Your task to perform on an android device: Go to Maps Image 0: 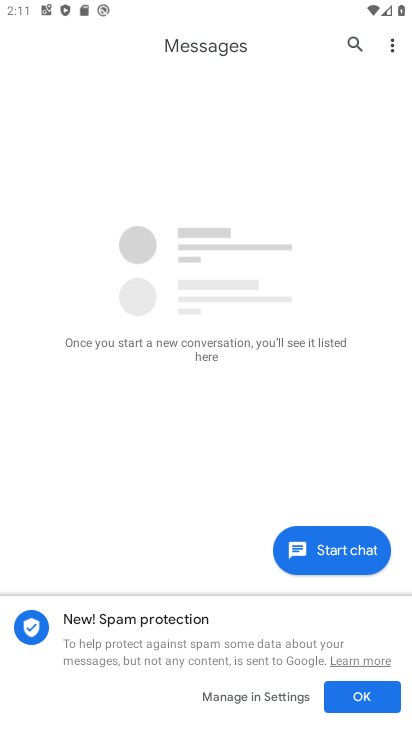
Step 0: press back button
Your task to perform on an android device: Go to Maps Image 1: 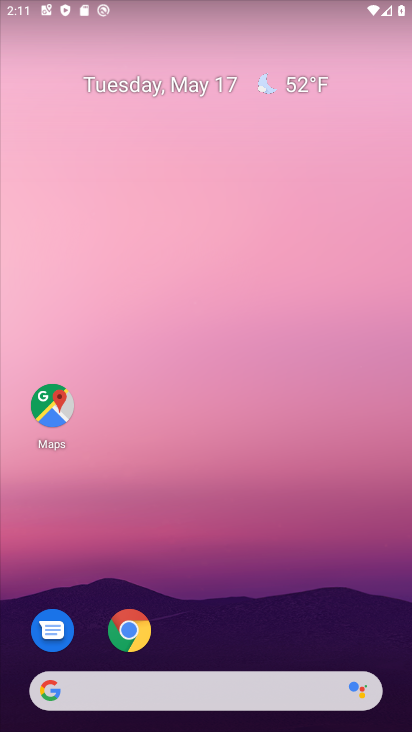
Step 1: click (42, 394)
Your task to perform on an android device: Go to Maps Image 2: 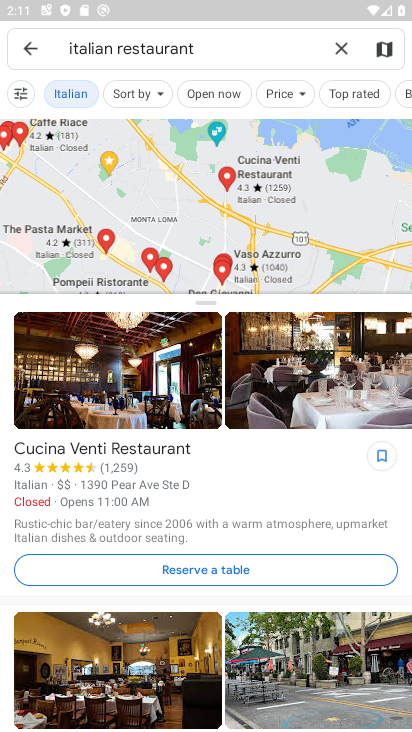
Step 2: task complete